Your task to perform on an android device: Go to battery settings Image 0: 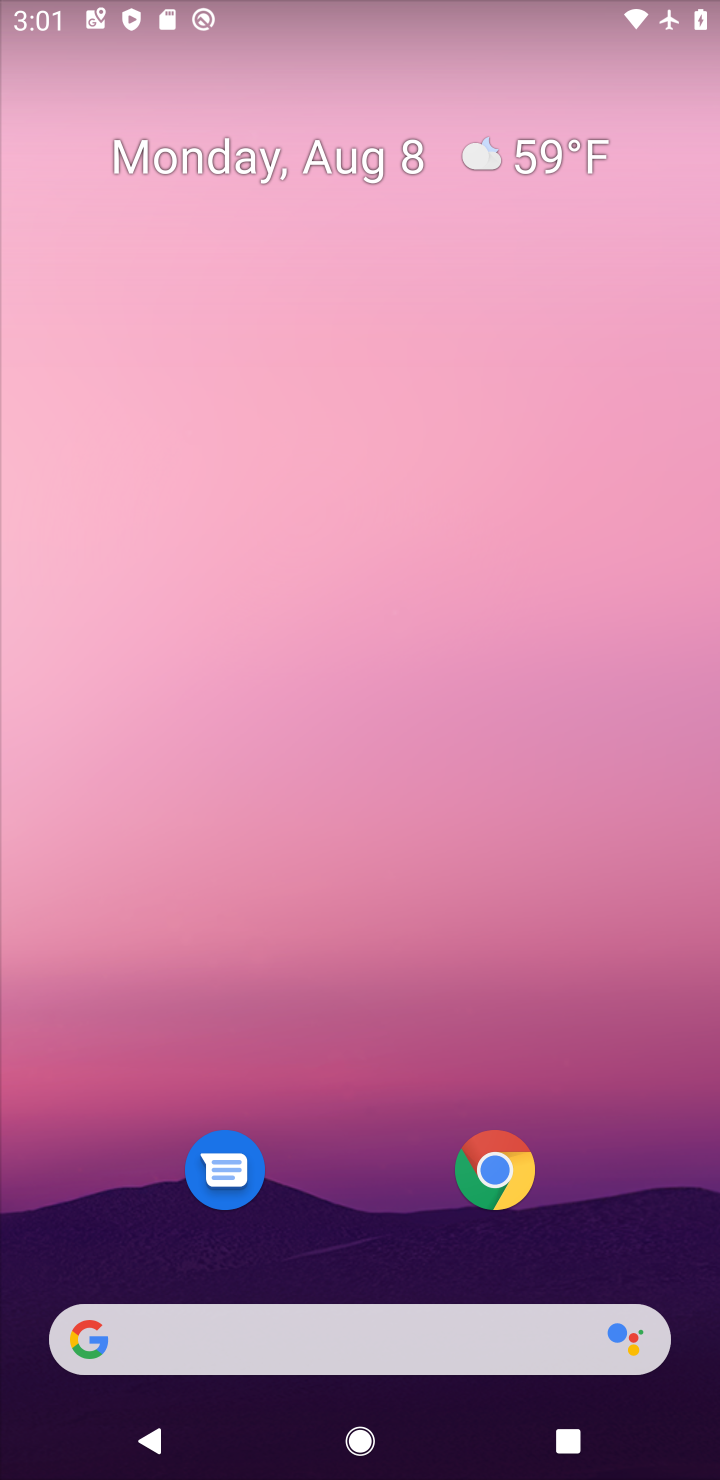
Step 0: drag from (360, 1193) to (449, 388)
Your task to perform on an android device: Go to battery settings Image 1: 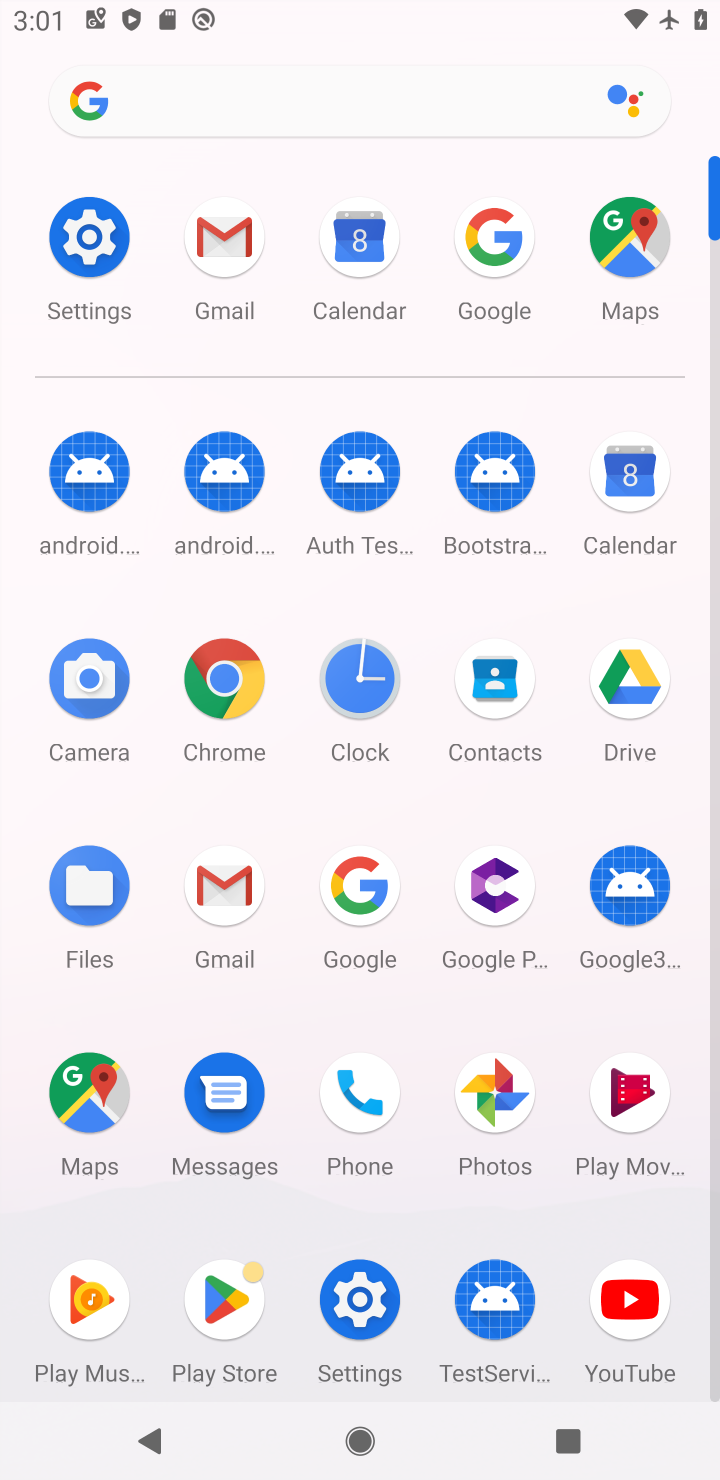
Step 1: click (108, 239)
Your task to perform on an android device: Go to battery settings Image 2: 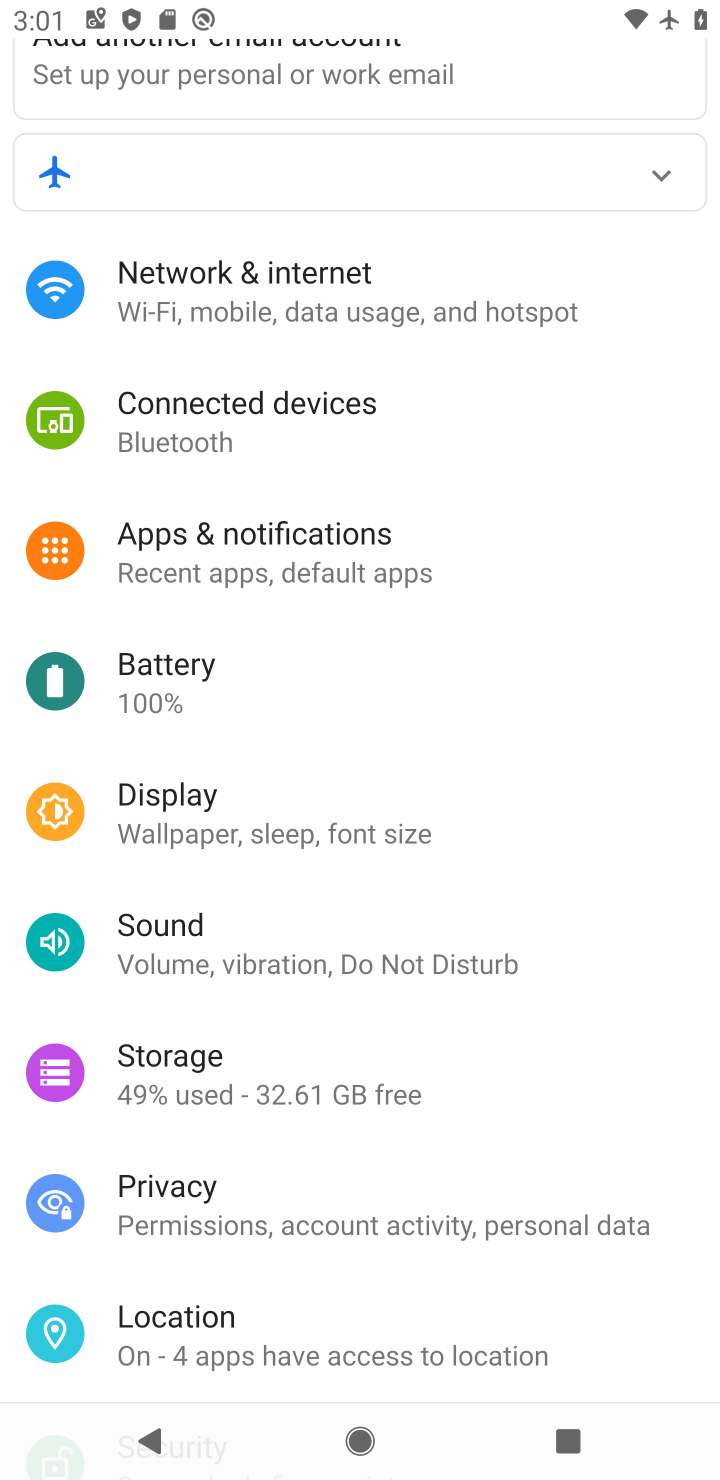
Step 2: click (209, 705)
Your task to perform on an android device: Go to battery settings Image 3: 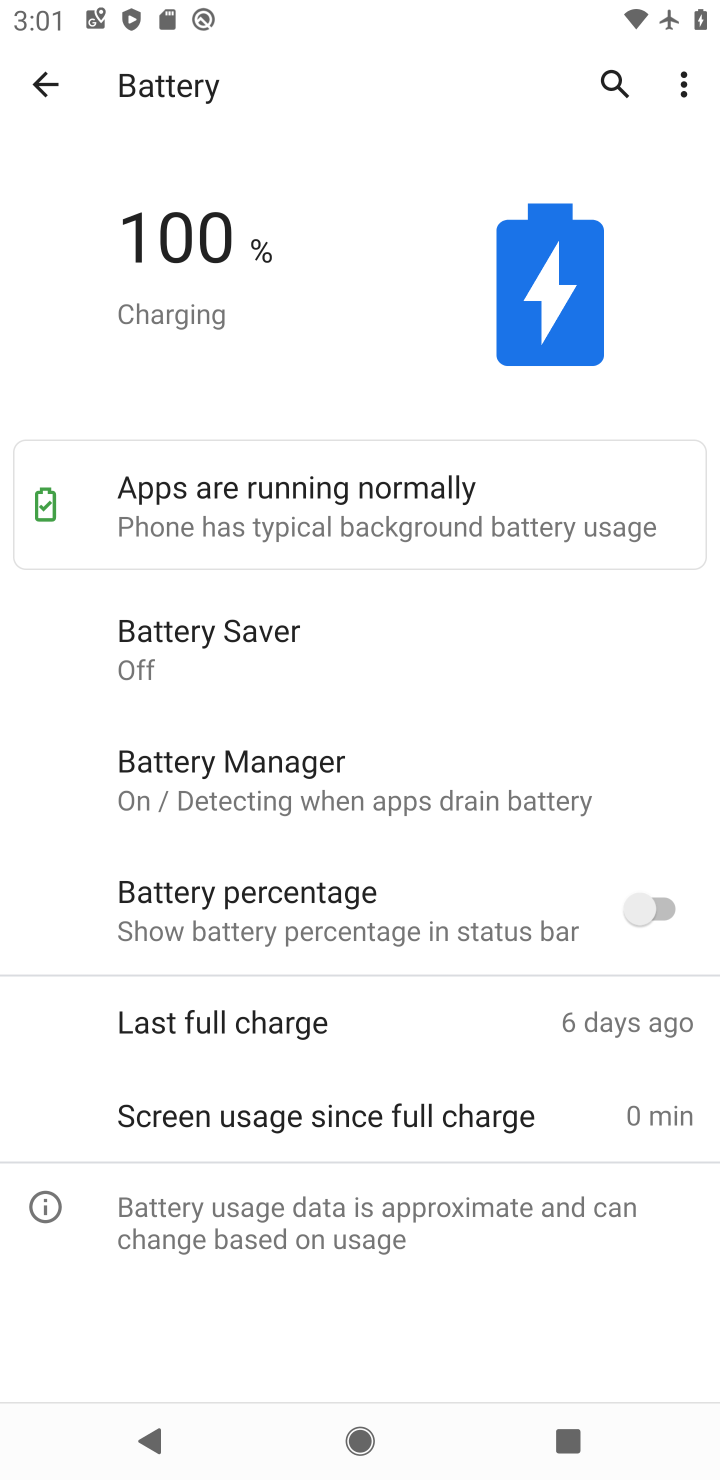
Step 3: task complete